Your task to perform on an android device: change notification settings in the gmail app Image 0: 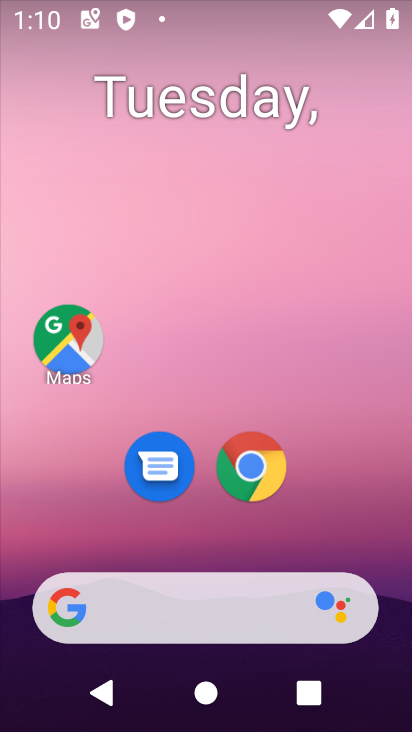
Step 0: drag from (298, 517) to (253, 102)
Your task to perform on an android device: change notification settings in the gmail app Image 1: 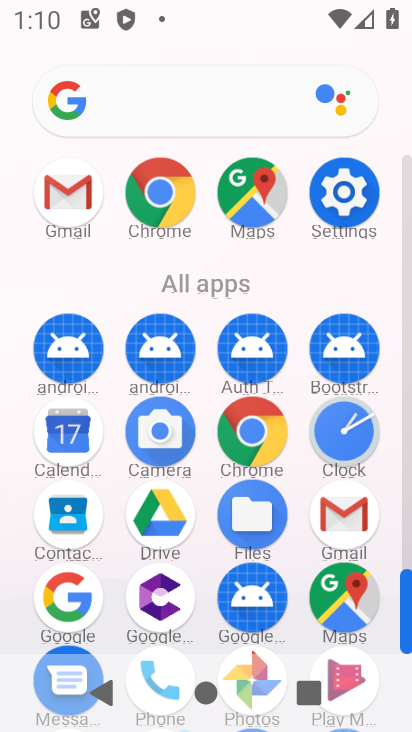
Step 1: click (342, 498)
Your task to perform on an android device: change notification settings in the gmail app Image 2: 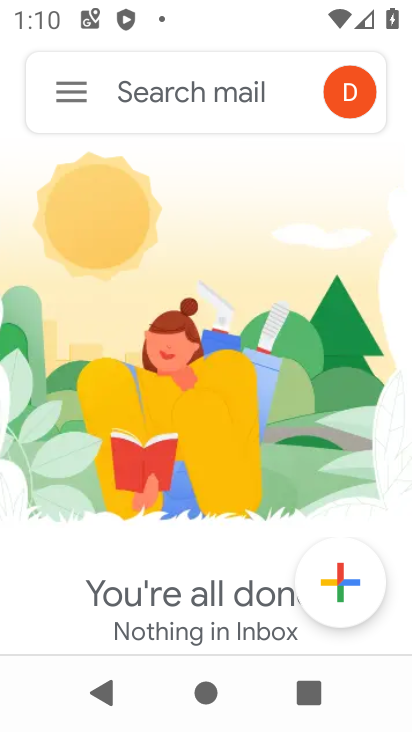
Step 2: click (70, 91)
Your task to perform on an android device: change notification settings in the gmail app Image 3: 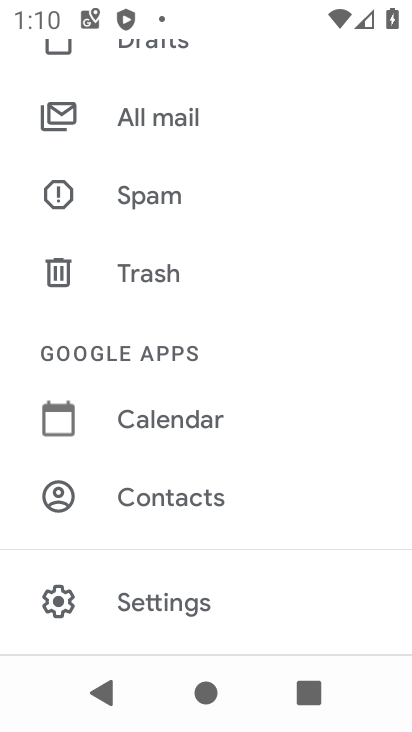
Step 3: click (150, 607)
Your task to perform on an android device: change notification settings in the gmail app Image 4: 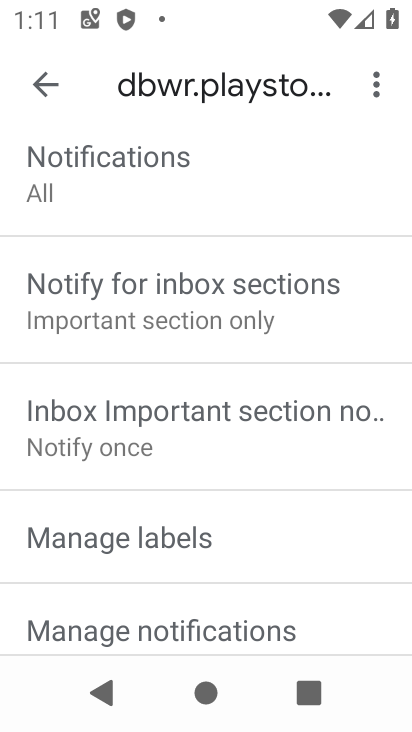
Step 4: click (112, 613)
Your task to perform on an android device: change notification settings in the gmail app Image 5: 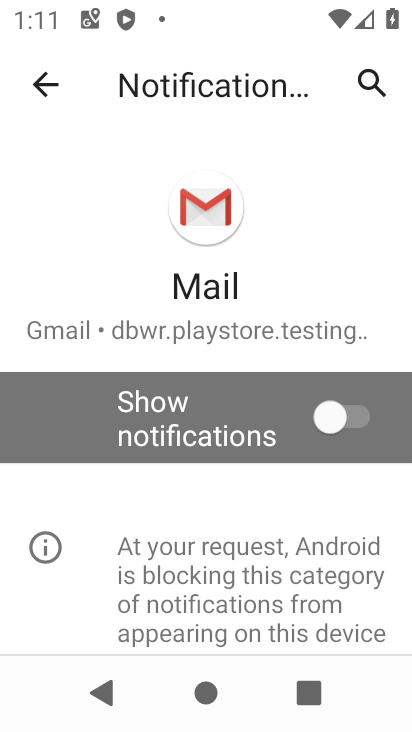
Step 5: click (351, 413)
Your task to perform on an android device: change notification settings in the gmail app Image 6: 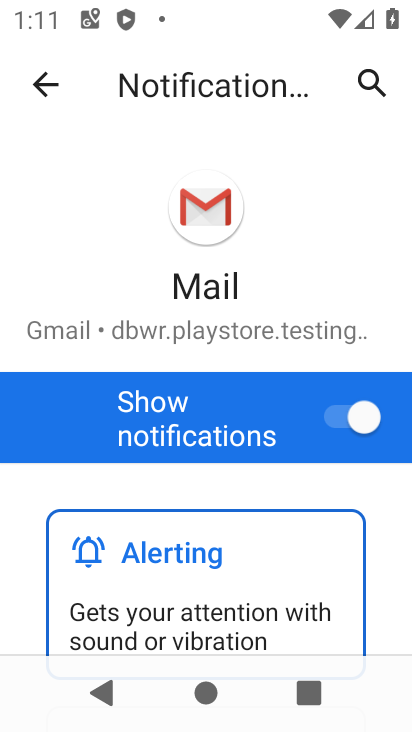
Step 6: task complete